Your task to perform on an android device: change keyboard looks Image 0: 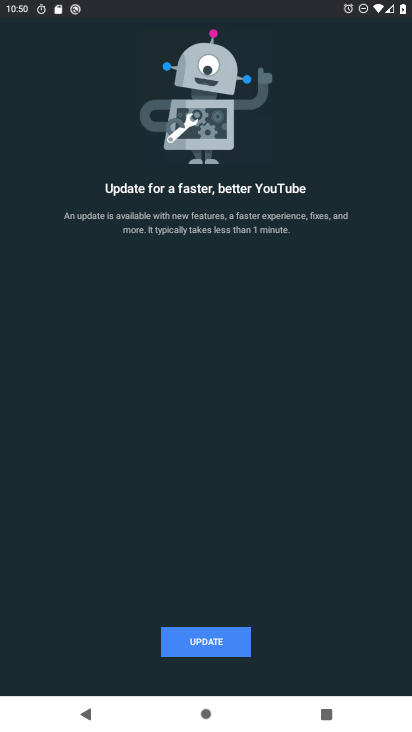
Step 0: press home button
Your task to perform on an android device: change keyboard looks Image 1: 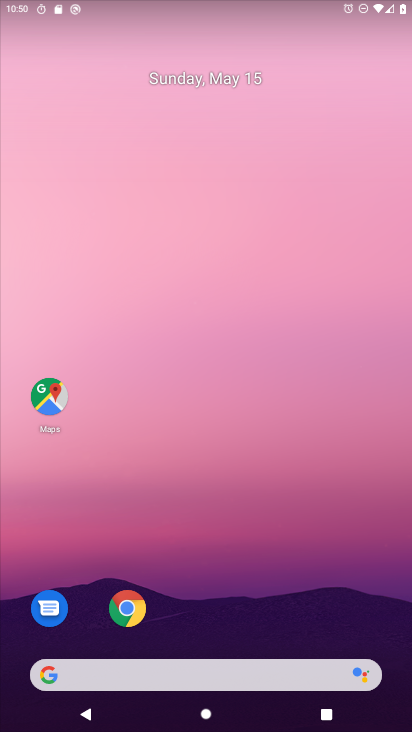
Step 1: drag from (325, 600) to (272, 96)
Your task to perform on an android device: change keyboard looks Image 2: 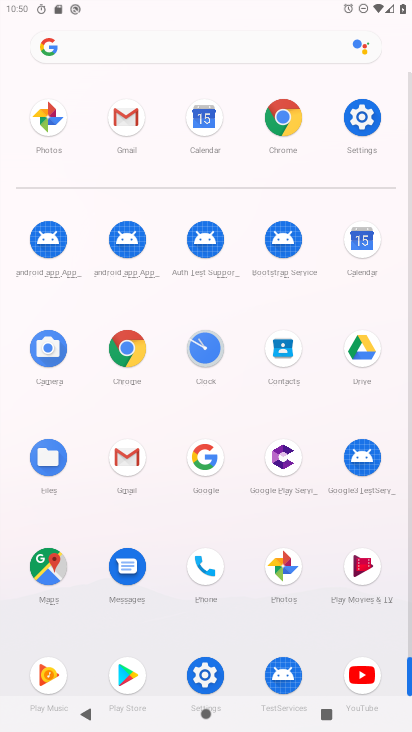
Step 2: click (361, 97)
Your task to perform on an android device: change keyboard looks Image 3: 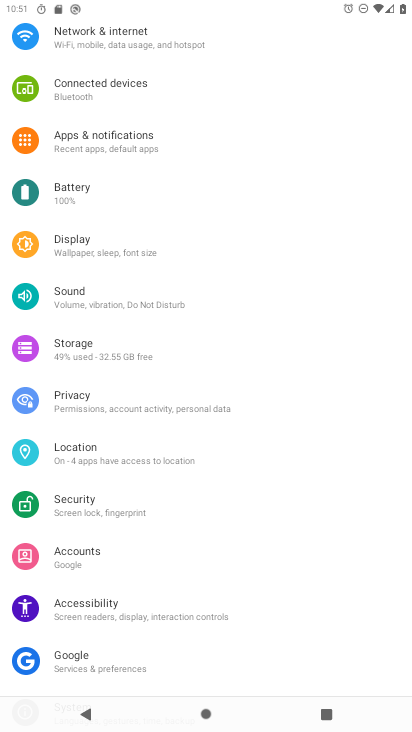
Step 3: drag from (131, 607) to (146, 210)
Your task to perform on an android device: change keyboard looks Image 4: 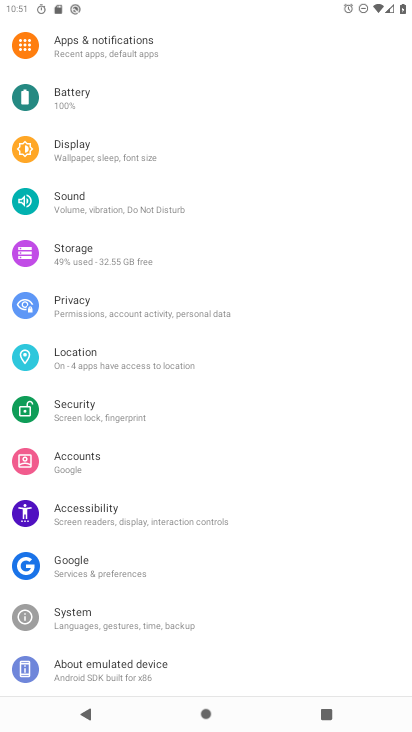
Step 4: click (182, 614)
Your task to perform on an android device: change keyboard looks Image 5: 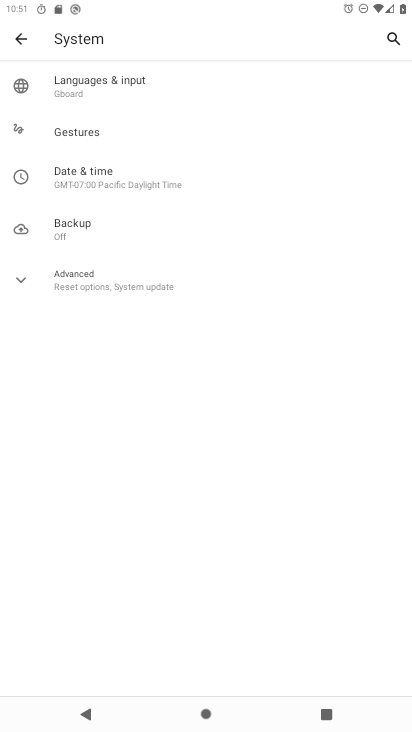
Step 5: click (185, 67)
Your task to perform on an android device: change keyboard looks Image 6: 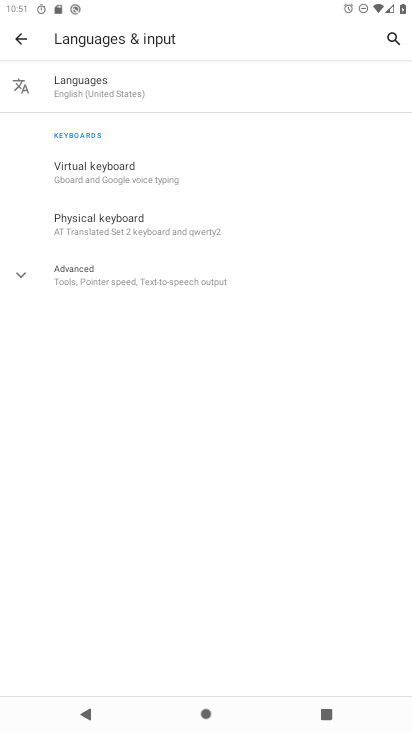
Step 6: click (176, 191)
Your task to perform on an android device: change keyboard looks Image 7: 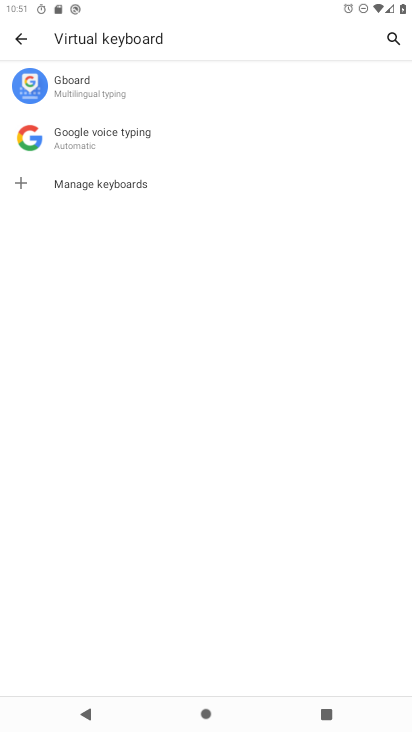
Step 7: click (187, 80)
Your task to perform on an android device: change keyboard looks Image 8: 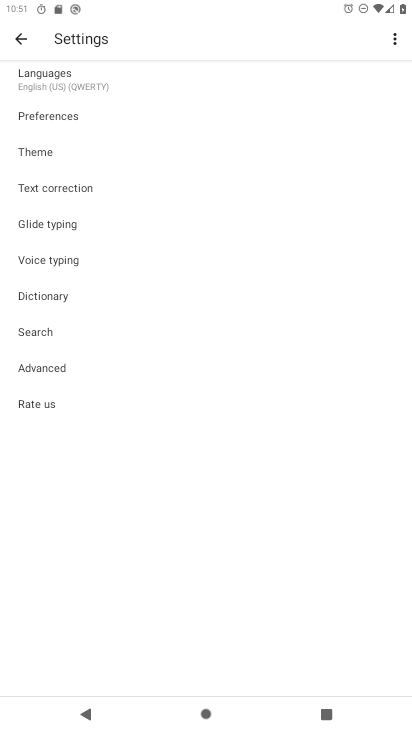
Step 8: click (120, 164)
Your task to perform on an android device: change keyboard looks Image 9: 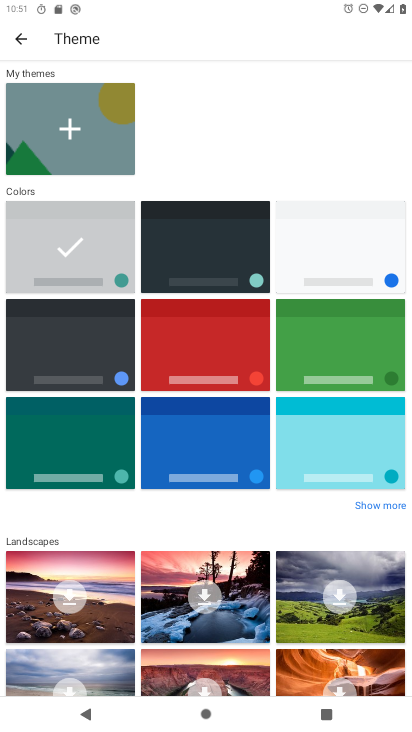
Step 9: click (180, 340)
Your task to perform on an android device: change keyboard looks Image 10: 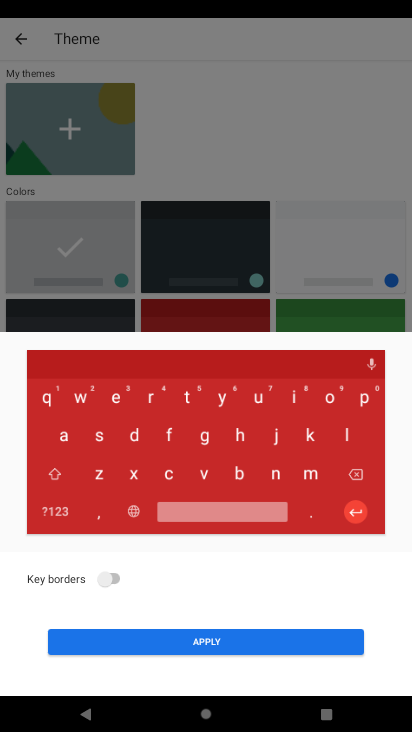
Step 10: click (222, 649)
Your task to perform on an android device: change keyboard looks Image 11: 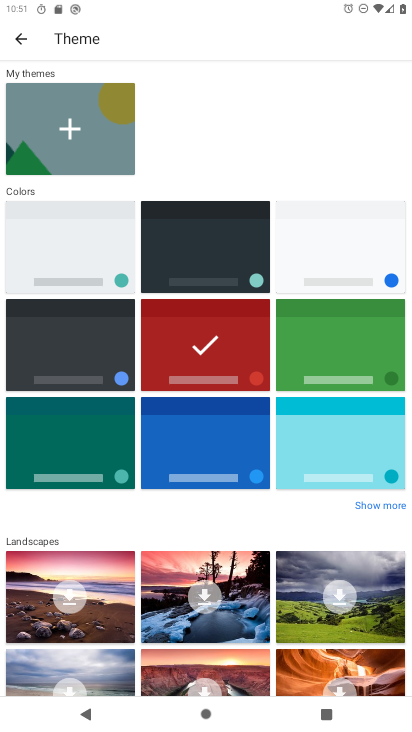
Step 11: task complete